Your task to perform on an android device: Open the map Image 0: 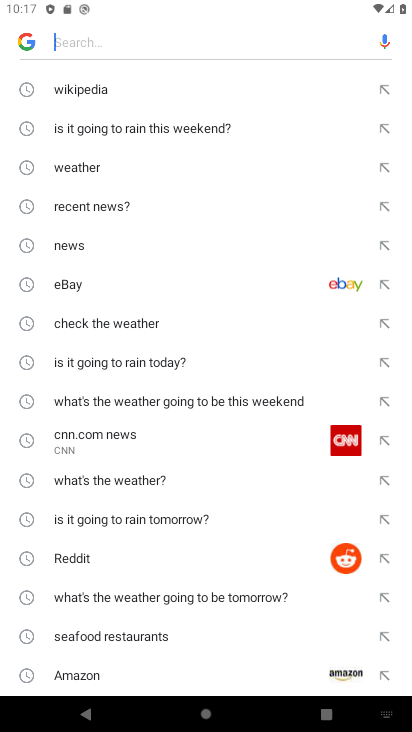
Step 0: press home button
Your task to perform on an android device: Open the map Image 1: 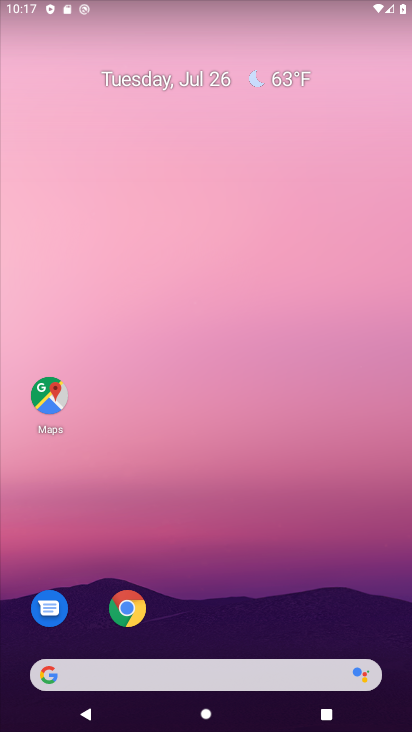
Step 1: click (39, 394)
Your task to perform on an android device: Open the map Image 2: 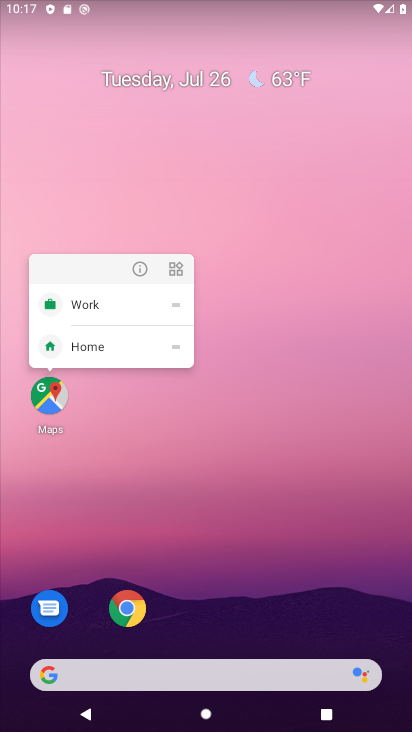
Step 2: click (41, 411)
Your task to perform on an android device: Open the map Image 3: 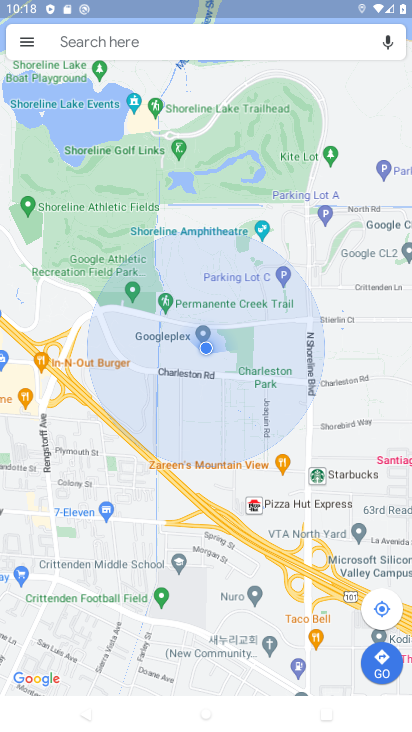
Step 3: task complete